Your task to perform on an android device: turn on priority inbox in the gmail app Image 0: 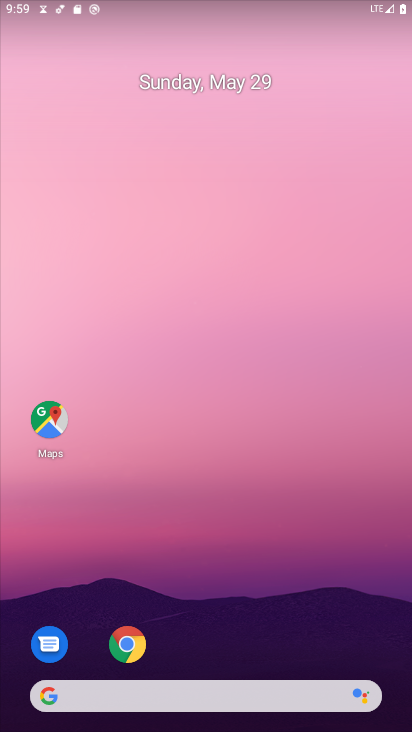
Step 0: drag from (184, 8) to (262, 617)
Your task to perform on an android device: turn on priority inbox in the gmail app Image 1: 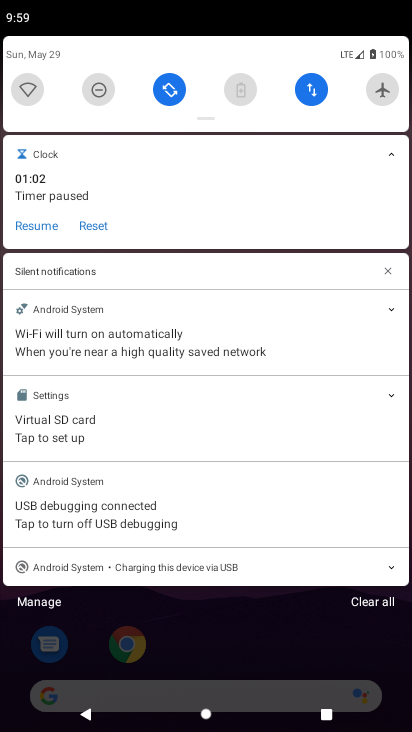
Step 1: drag from (253, 619) to (233, 66)
Your task to perform on an android device: turn on priority inbox in the gmail app Image 2: 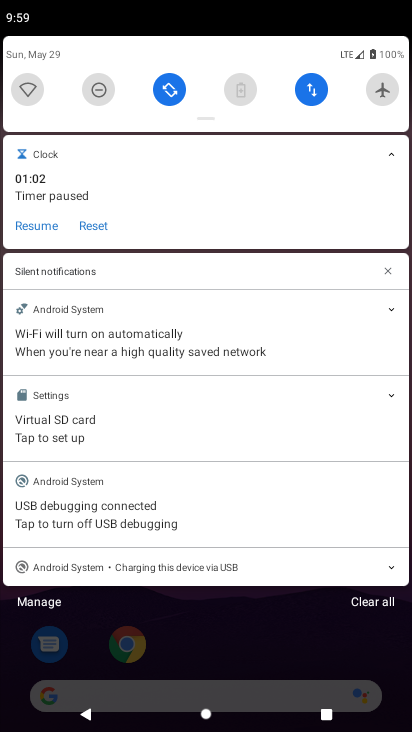
Step 2: press home button
Your task to perform on an android device: turn on priority inbox in the gmail app Image 3: 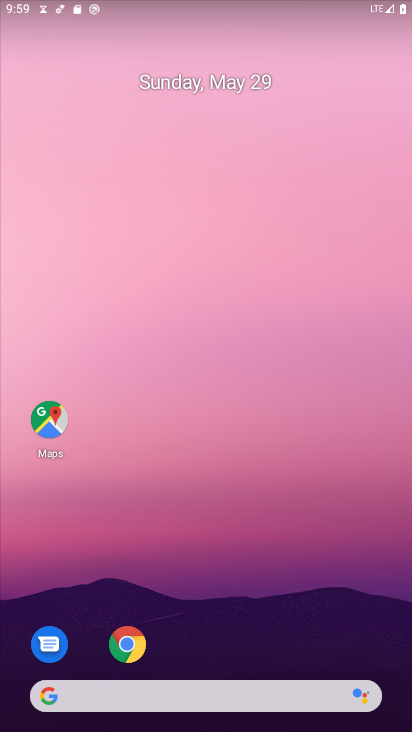
Step 3: drag from (127, 725) to (108, 105)
Your task to perform on an android device: turn on priority inbox in the gmail app Image 4: 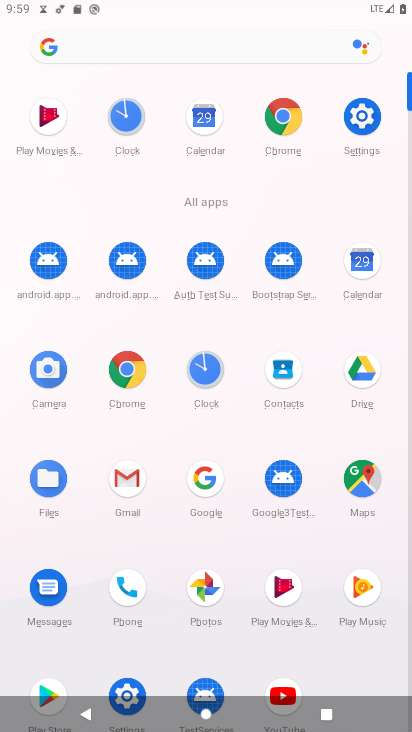
Step 4: click (132, 485)
Your task to perform on an android device: turn on priority inbox in the gmail app Image 5: 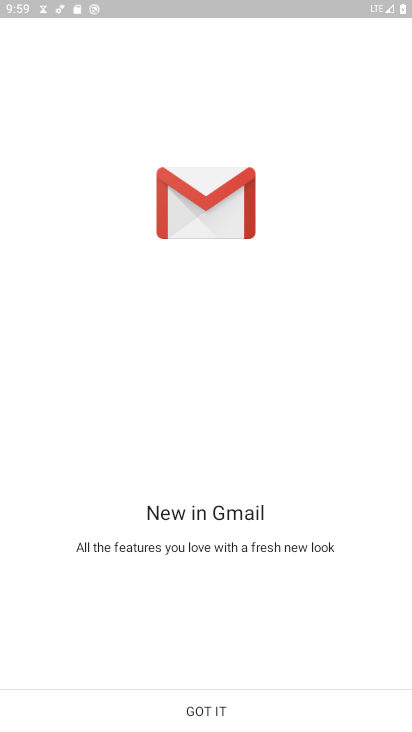
Step 5: click (212, 709)
Your task to perform on an android device: turn on priority inbox in the gmail app Image 6: 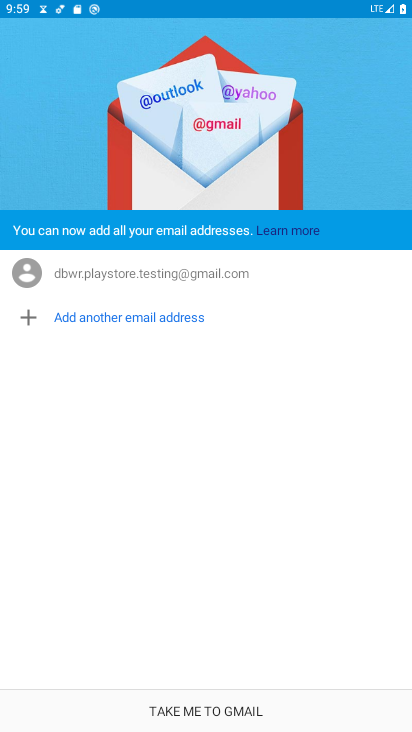
Step 6: click (203, 716)
Your task to perform on an android device: turn on priority inbox in the gmail app Image 7: 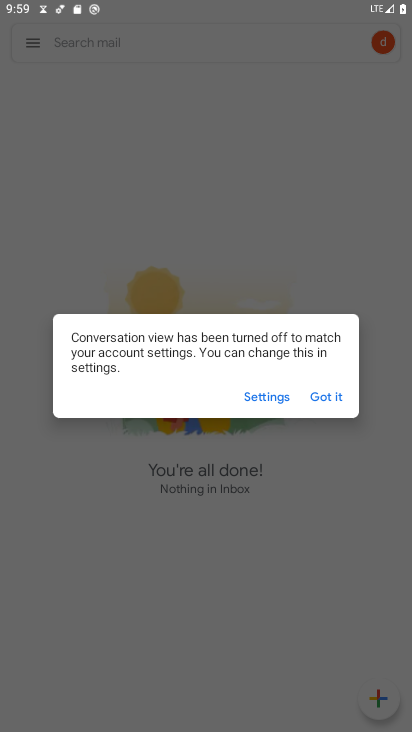
Step 7: click (340, 400)
Your task to perform on an android device: turn on priority inbox in the gmail app Image 8: 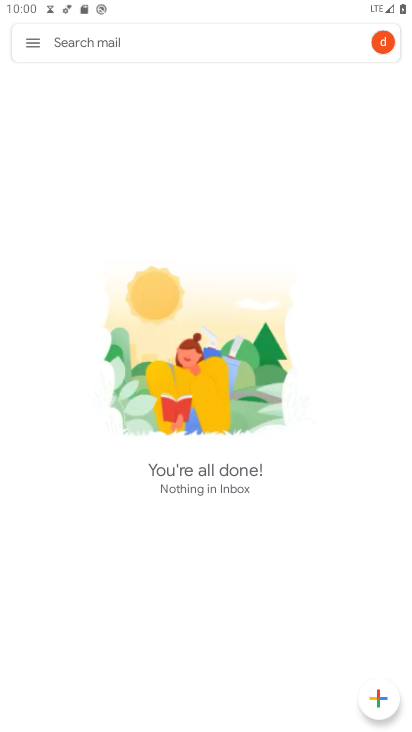
Step 8: click (16, 50)
Your task to perform on an android device: turn on priority inbox in the gmail app Image 9: 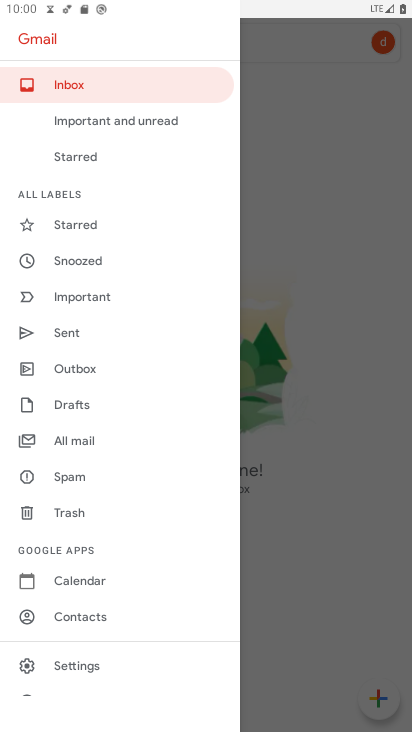
Step 9: click (75, 669)
Your task to perform on an android device: turn on priority inbox in the gmail app Image 10: 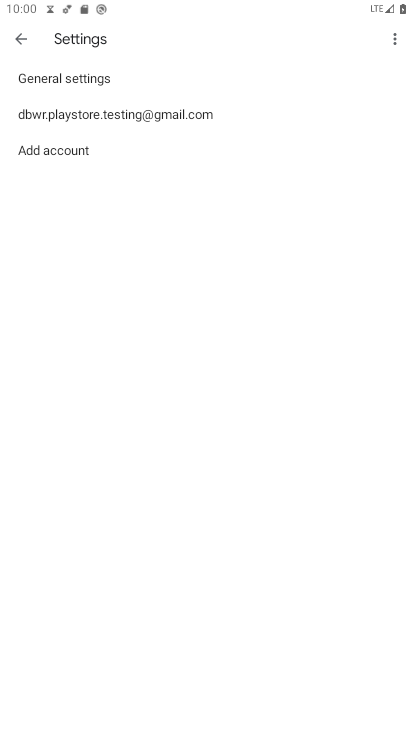
Step 10: click (123, 118)
Your task to perform on an android device: turn on priority inbox in the gmail app Image 11: 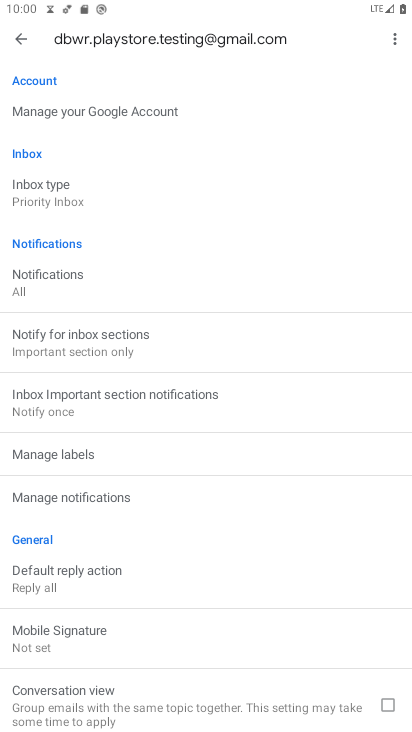
Step 11: click (78, 204)
Your task to perform on an android device: turn on priority inbox in the gmail app Image 12: 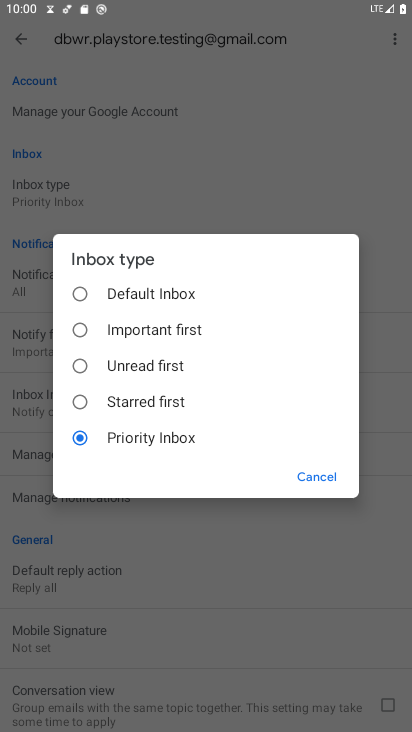
Step 12: task complete